Your task to perform on an android device: remove spam from my inbox in the gmail app Image 0: 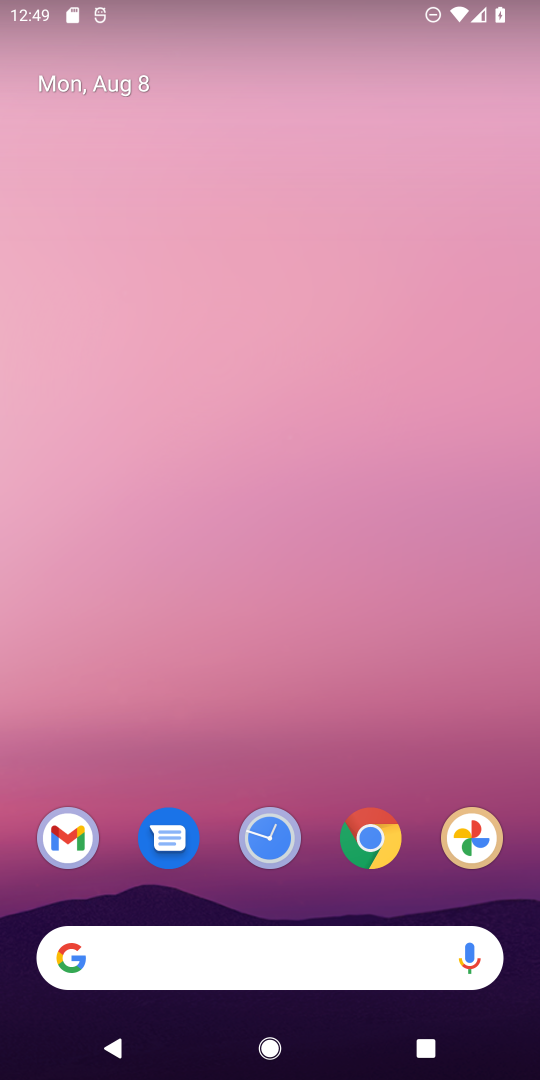
Step 0: press home button
Your task to perform on an android device: remove spam from my inbox in the gmail app Image 1: 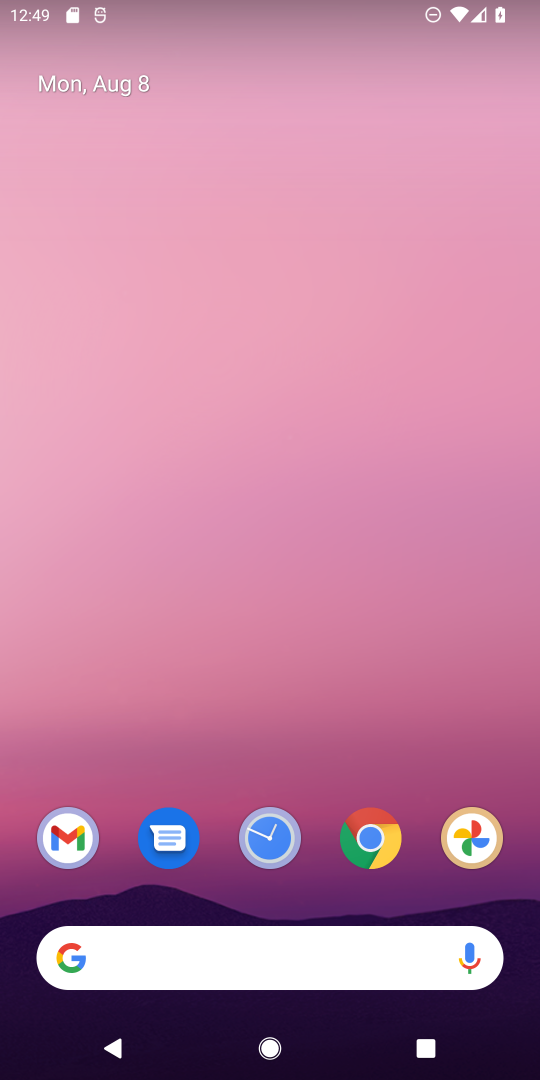
Step 1: click (71, 828)
Your task to perform on an android device: remove spam from my inbox in the gmail app Image 2: 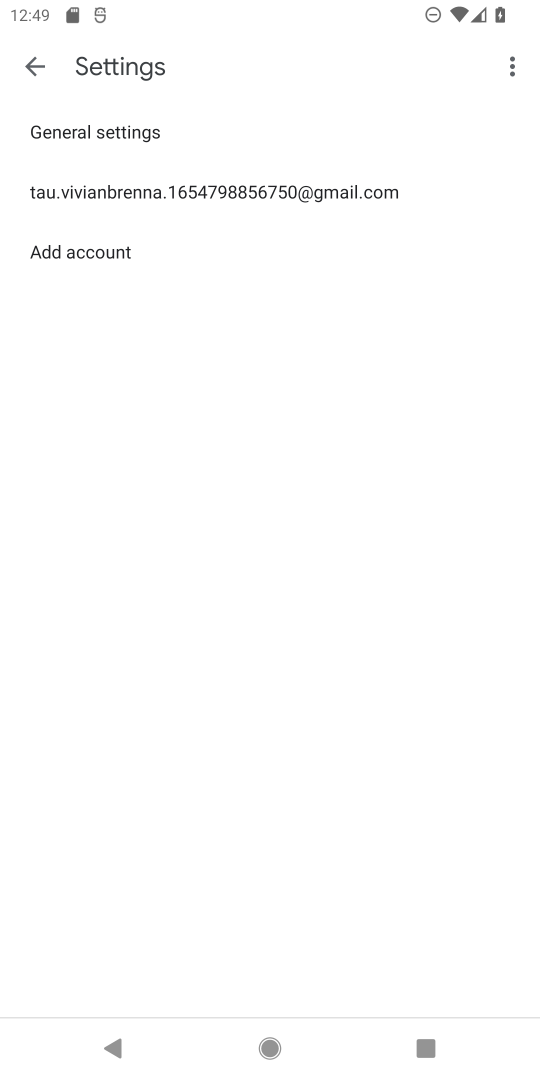
Step 2: click (138, 191)
Your task to perform on an android device: remove spam from my inbox in the gmail app Image 3: 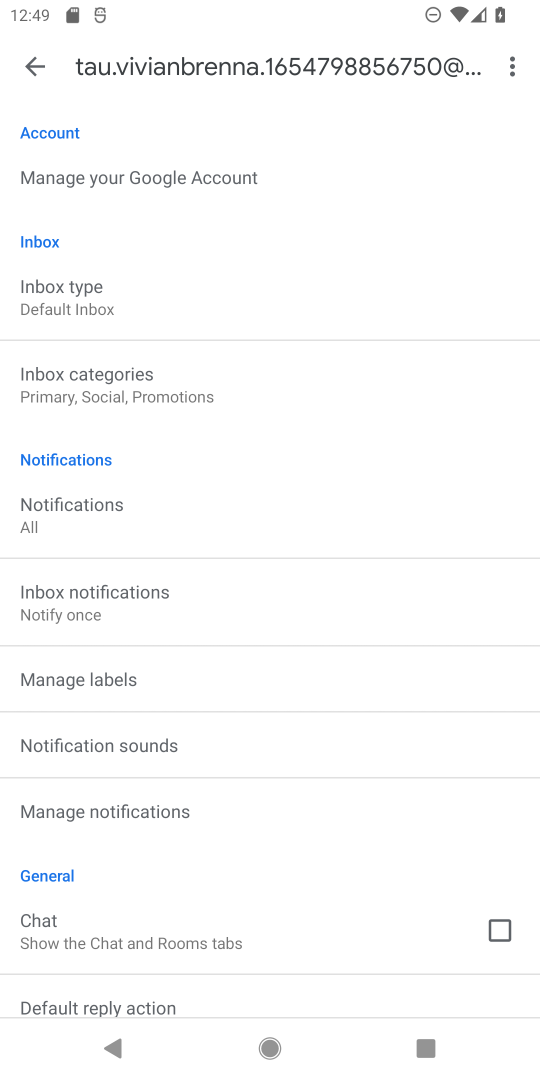
Step 3: click (32, 53)
Your task to perform on an android device: remove spam from my inbox in the gmail app Image 4: 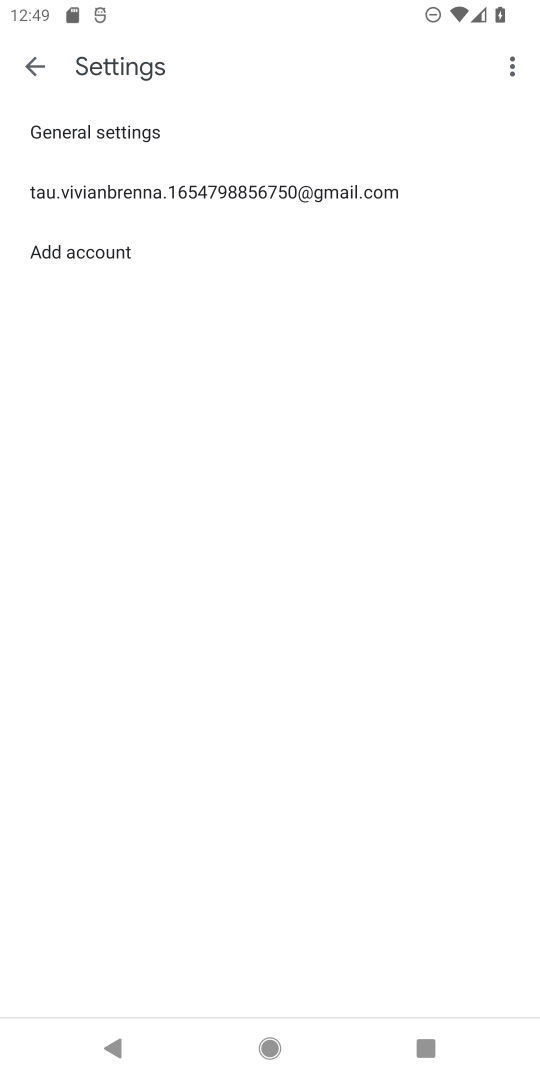
Step 4: click (30, 67)
Your task to perform on an android device: remove spam from my inbox in the gmail app Image 5: 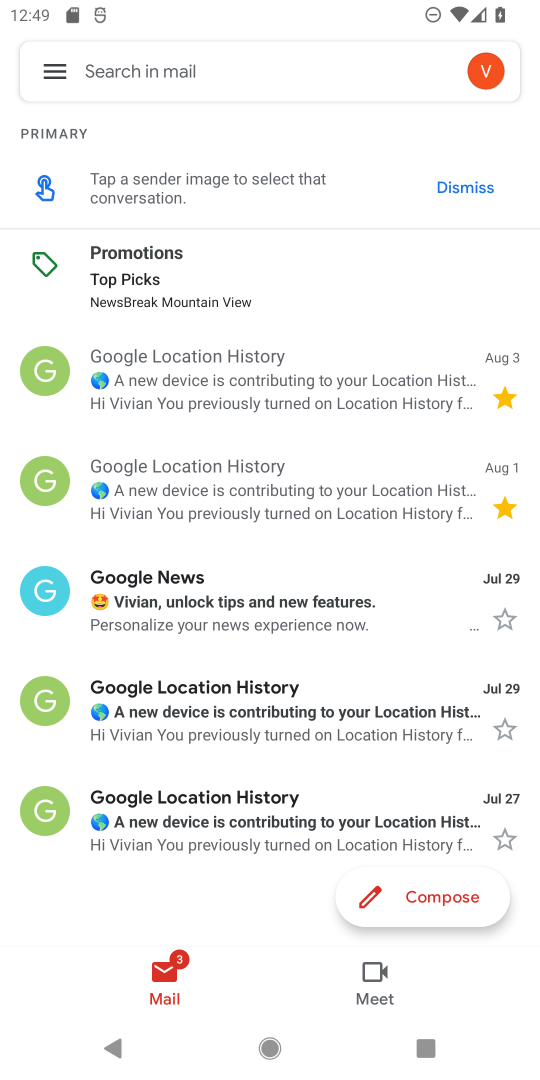
Step 5: click (270, 359)
Your task to perform on an android device: remove spam from my inbox in the gmail app Image 6: 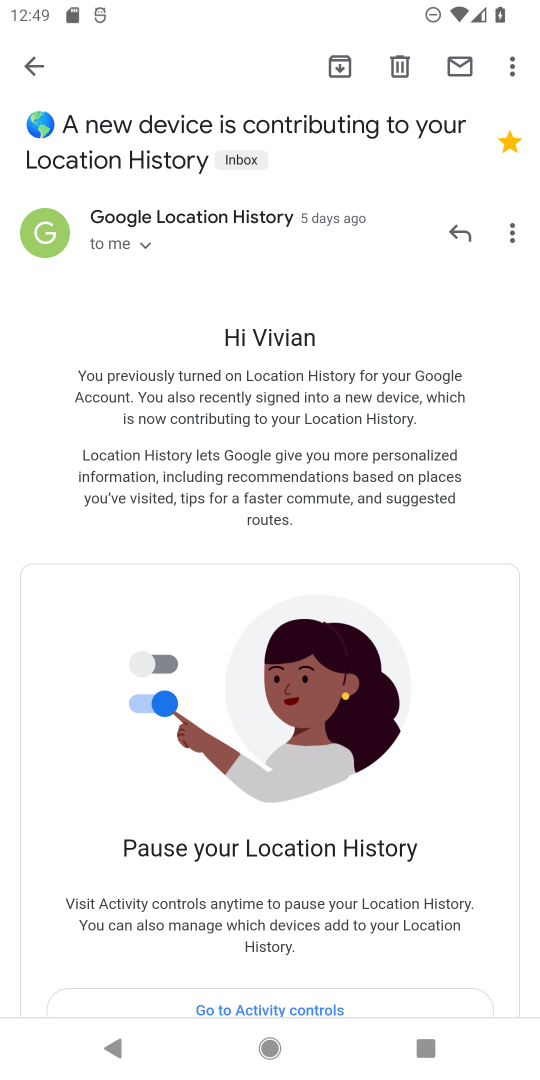
Step 6: click (518, 65)
Your task to perform on an android device: remove spam from my inbox in the gmail app Image 7: 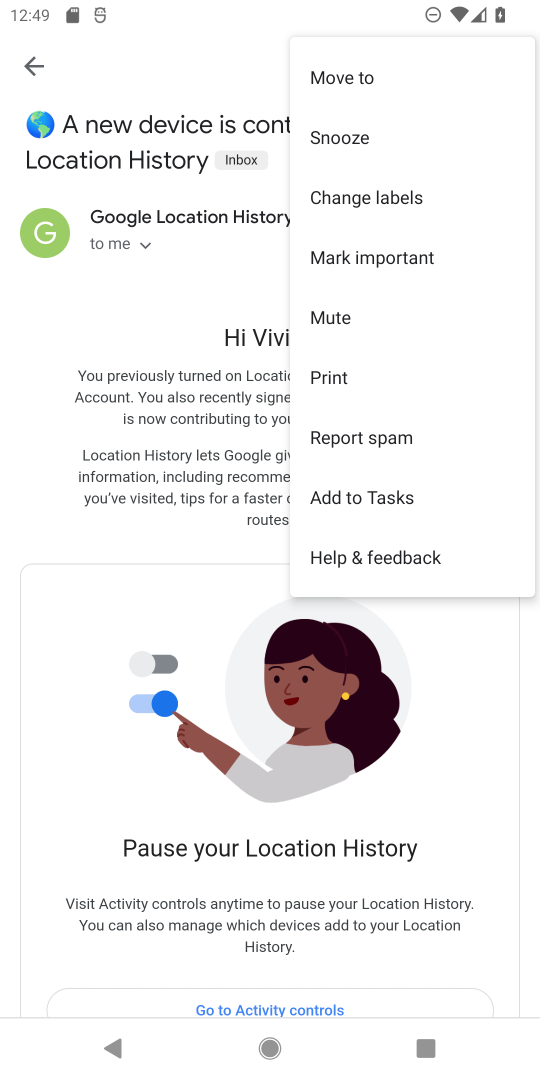
Step 7: click (385, 434)
Your task to perform on an android device: remove spam from my inbox in the gmail app Image 8: 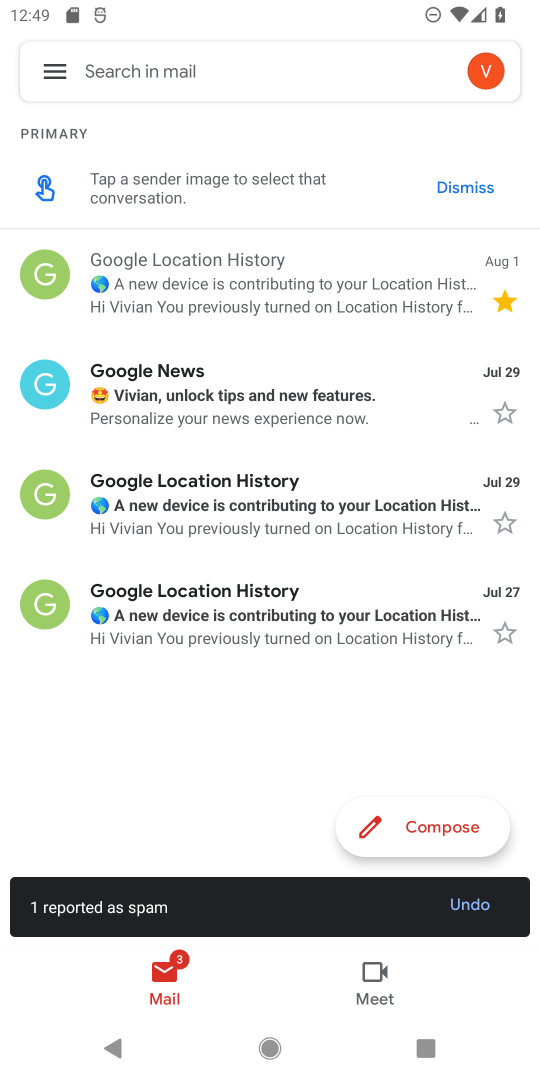
Step 8: task complete